Your task to perform on an android device: refresh tabs in the chrome app Image 0: 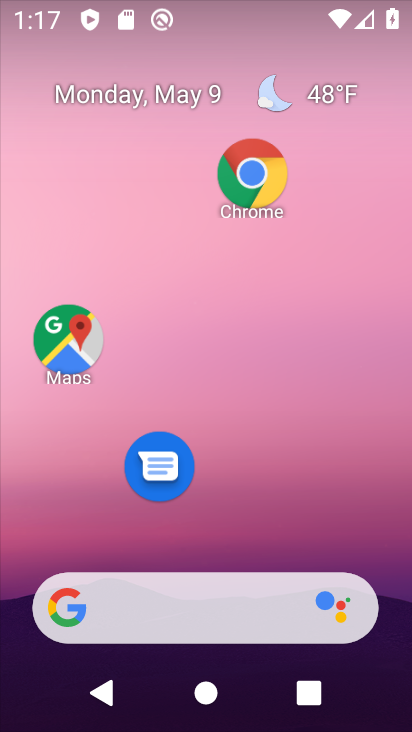
Step 0: click (255, 196)
Your task to perform on an android device: refresh tabs in the chrome app Image 1: 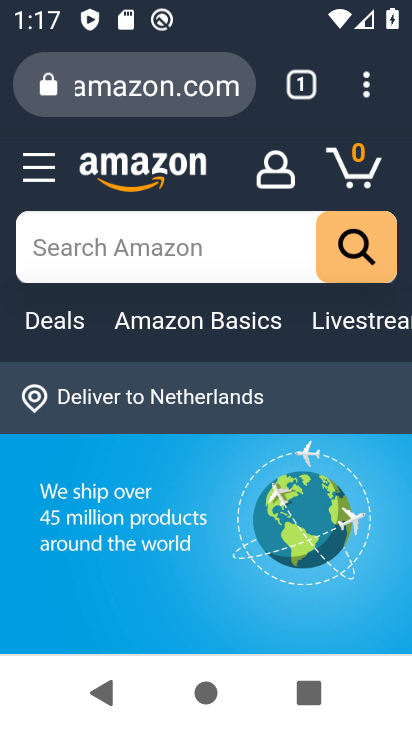
Step 1: click (366, 74)
Your task to perform on an android device: refresh tabs in the chrome app Image 2: 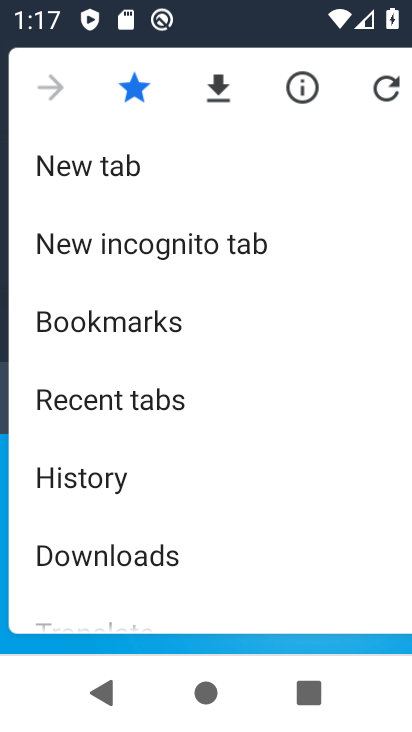
Step 2: click (380, 92)
Your task to perform on an android device: refresh tabs in the chrome app Image 3: 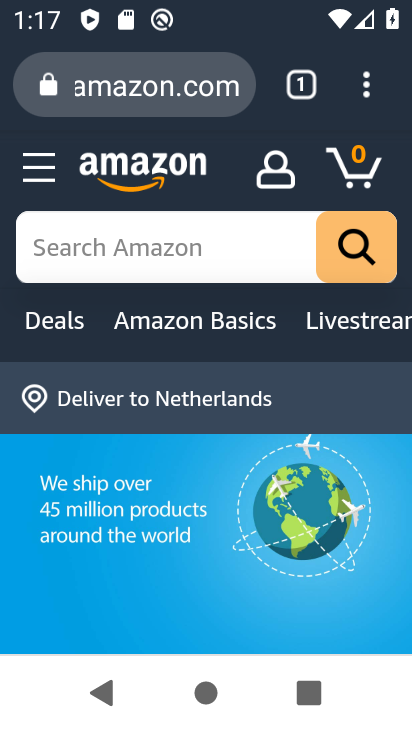
Step 3: task complete